Your task to perform on an android device: Open wifi settings Image 0: 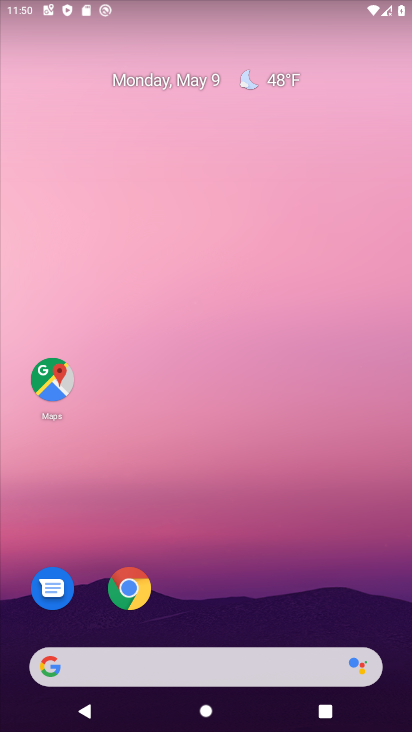
Step 0: drag from (270, 614) to (299, 171)
Your task to perform on an android device: Open wifi settings Image 1: 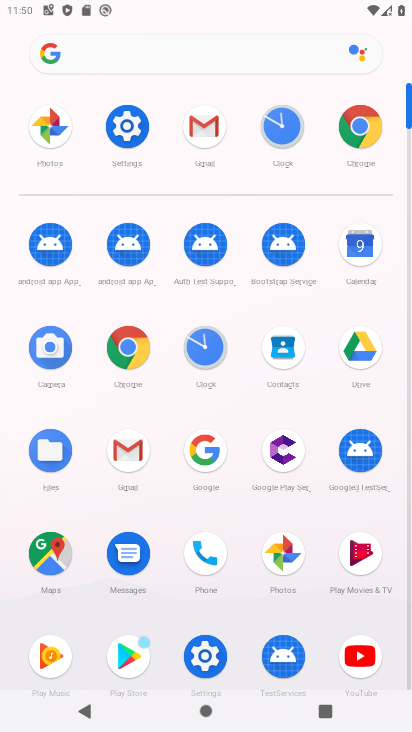
Step 1: click (122, 133)
Your task to perform on an android device: Open wifi settings Image 2: 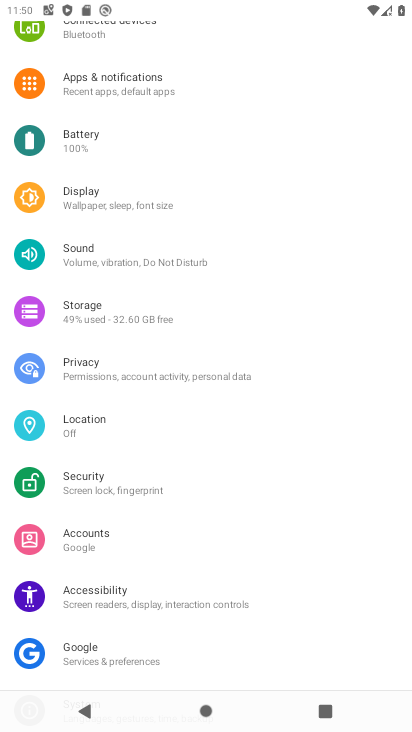
Step 2: drag from (130, 72) to (248, 511)
Your task to perform on an android device: Open wifi settings Image 3: 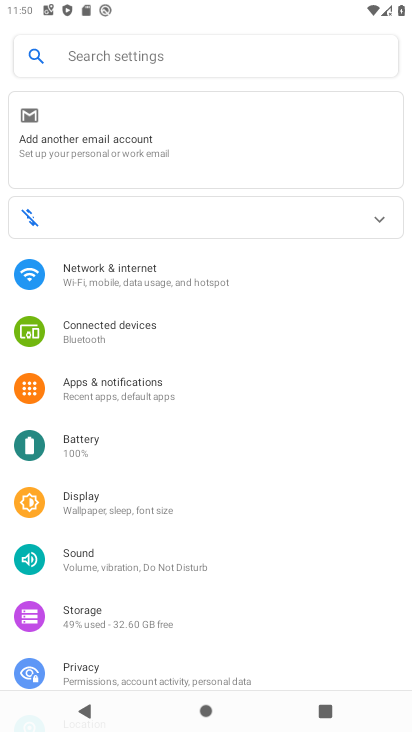
Step 3: click (185, 280)
Your task to perform on an android device: Open wifi settings Image 4: 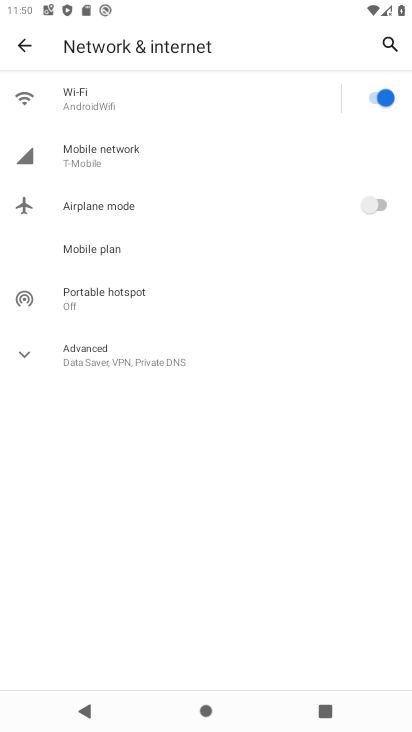
Step 4: click (215, 100)
Your task to perform on an android device: Open wifi settings Image 5: 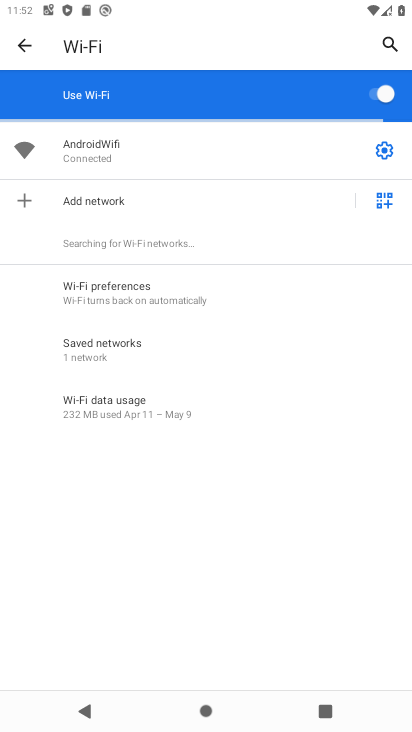
Step 5: task complete